Your task to perform on an android device: manage bookmarks in the chrome app Image 0: 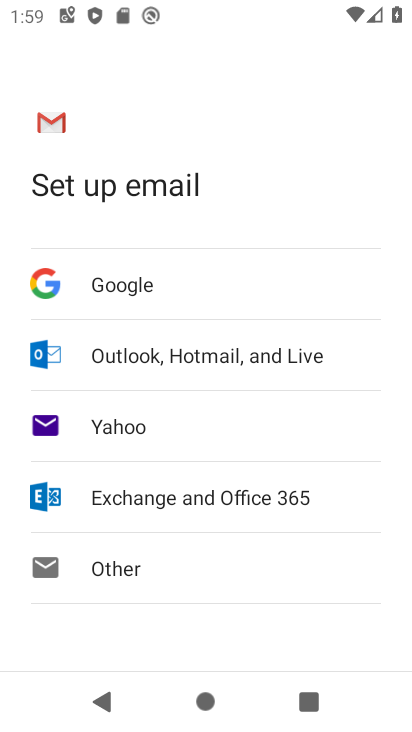
Step 0: press home button
Your task to perform on an android device: manage bookmarks in the chrome app Image 1: 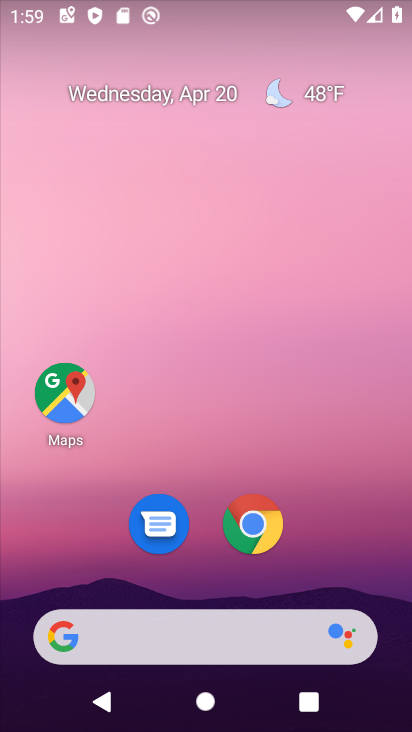
Step 1: click (261, 528)
Your task to perform on an android device: manage bookmarks in the chrome app Image 2: 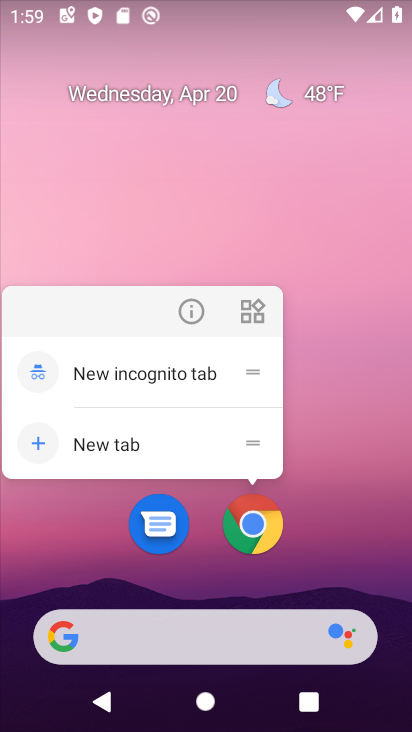
Step 2: click (261, 525)
Your task to perform on an android device: manage bookmarks in the chrome app Image 3: 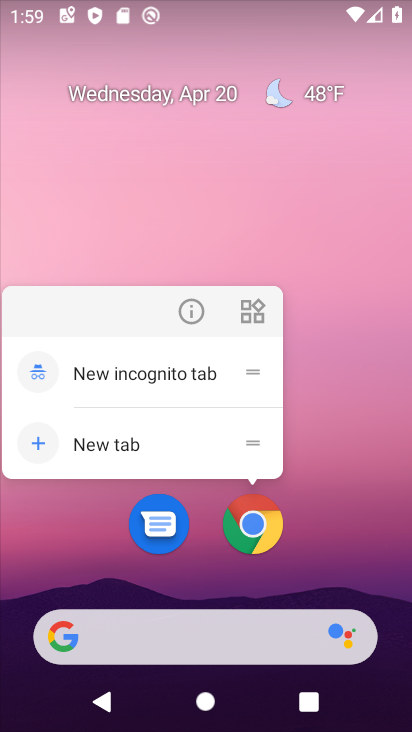
Step 3: click (258, 517)
Your task to perform on an android device: manage bookmarks in the chrome app Image 4: 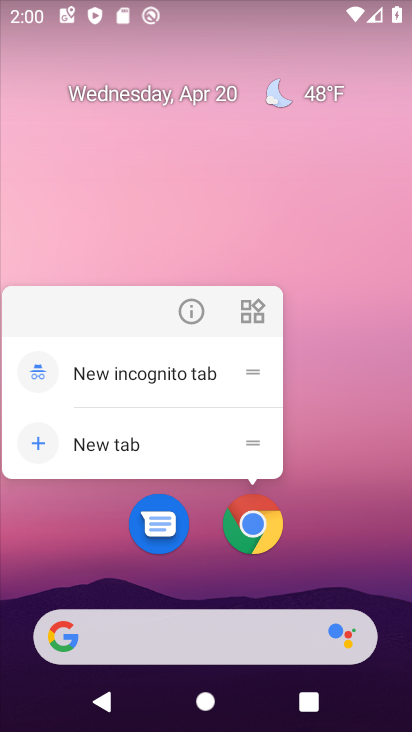
Step 4: click (258, 518)
Your task to perform on an android device: manage bookmarks in the chrome app Image 5: 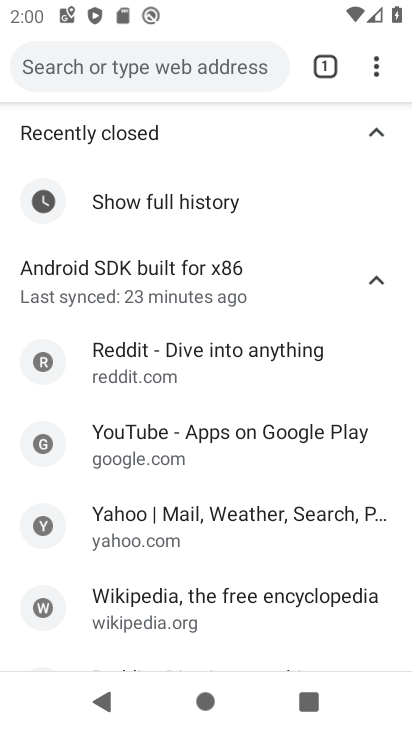
Step 5: click (377, 54)
Your task to perform on an android device: manage bookmarks in the chrome app Image 6: 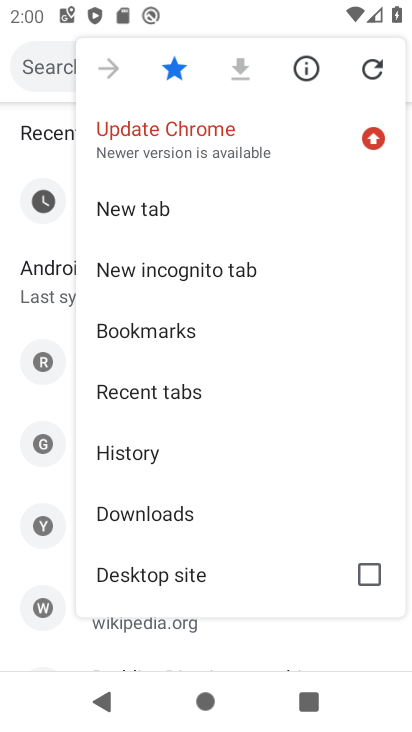
Step 6: click (193, 322)
Your task to perform on an android device: manage bookmarks in the chrome app Image 7: 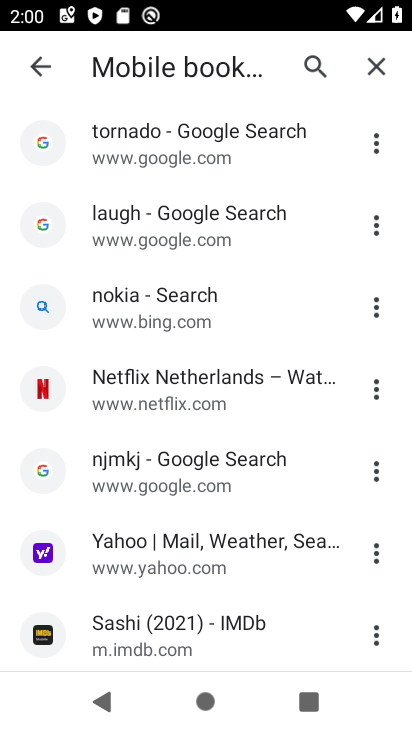
Step 7: click (375, 308)
Your task to perform on an android device: manage bookmarks in the chrome app Image 8: 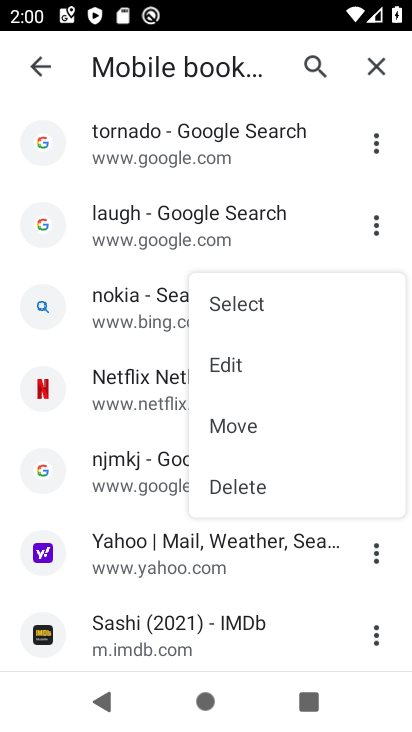
Step 8: click (290, 358)
Your task to perform on an android device: manage bookmarks in the chrome app Image 9: 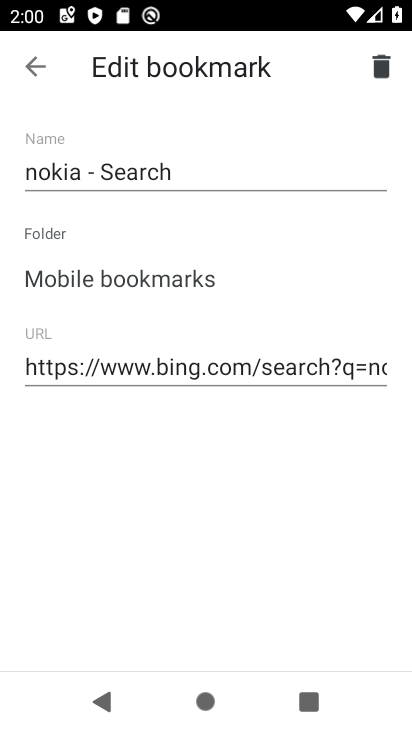
Step 9: click (40, 59)
Your task to perform on an android device: manage bookmarks in the chrome app Image 10: 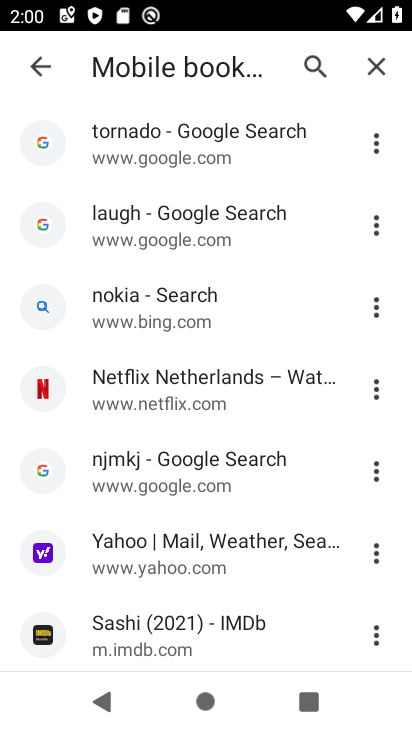
Step 10: click (40, 59)
Your task to perform on an android device: manage bookmarks in the chrome app Image 11: 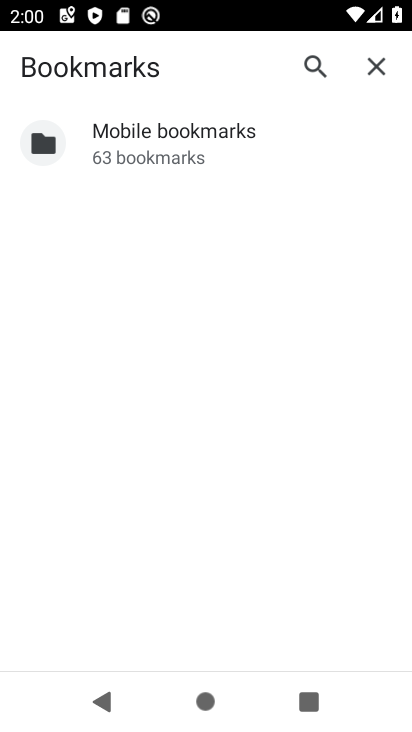
Step 11: task complete